Your task to perform on an android device: Open Chrome and go to the settings page Image 0: 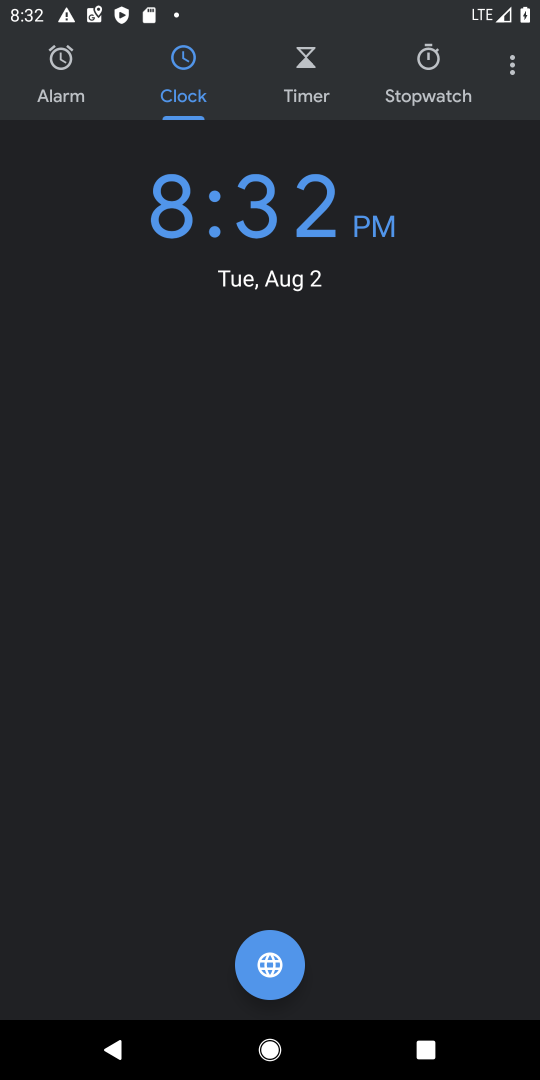
Step 0: press home button
Your task to perform on an android device: Open Chrome and go to the settings page Image 1: 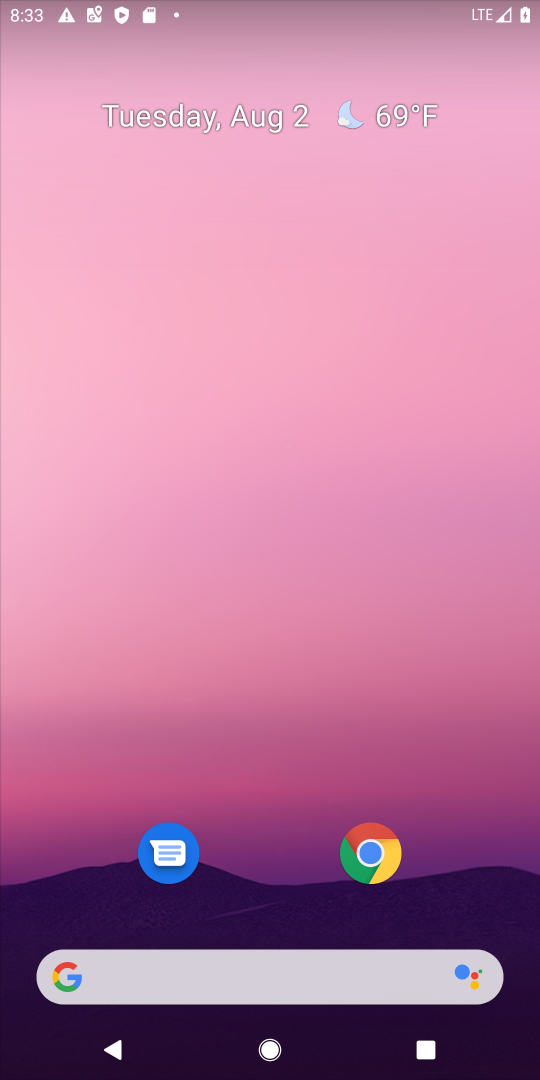
Step 1: click (384, 841)
Your task to perform on an android device: Open Chrome and go to the settings page Image 2: 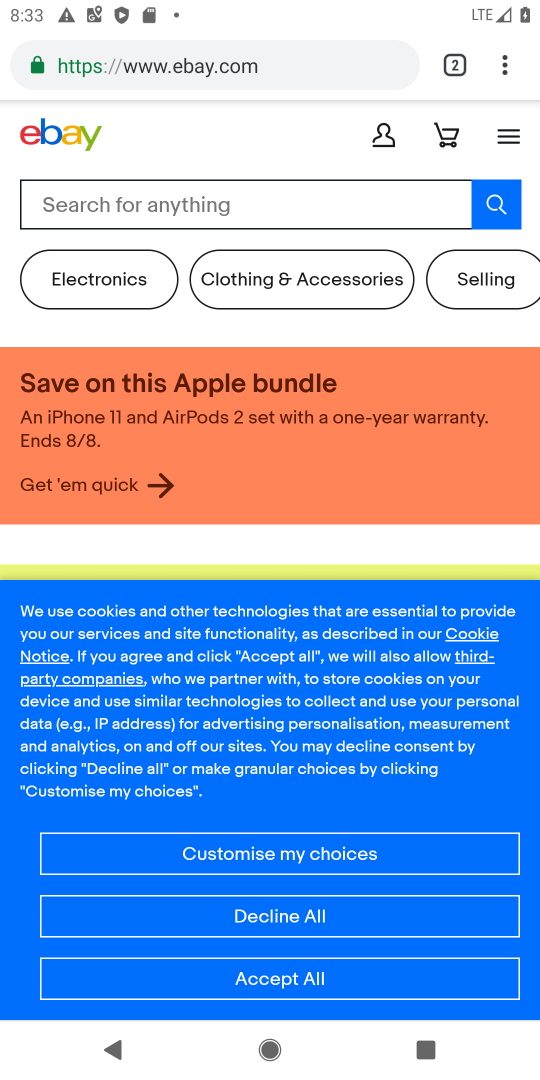
Step 2: click (511, 70)
Your task to perform on an android device: Open Chrome and go to the settings page Image 3: 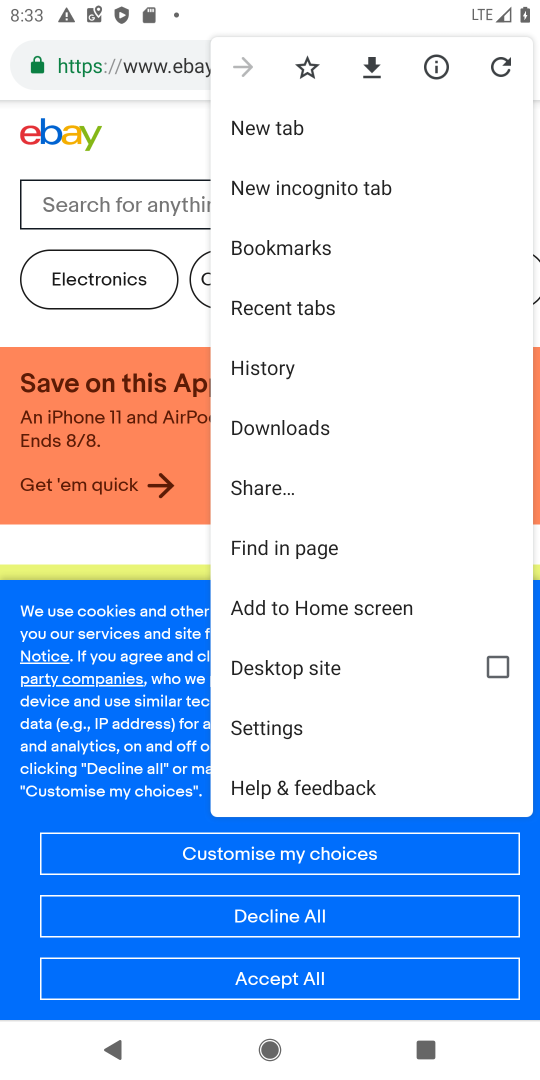
Step 3: click (285, 729)
Your task to perform on an android device: Open Chrome and go to the settings page Image 4: 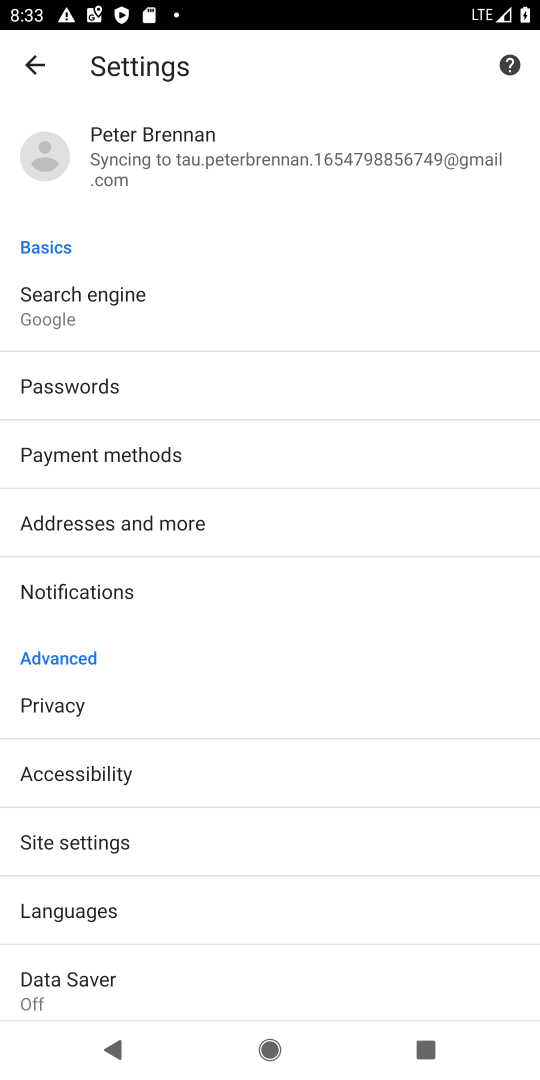
Step 4: task complete